Your task to perform on an android device: Open my contact list Image 0: 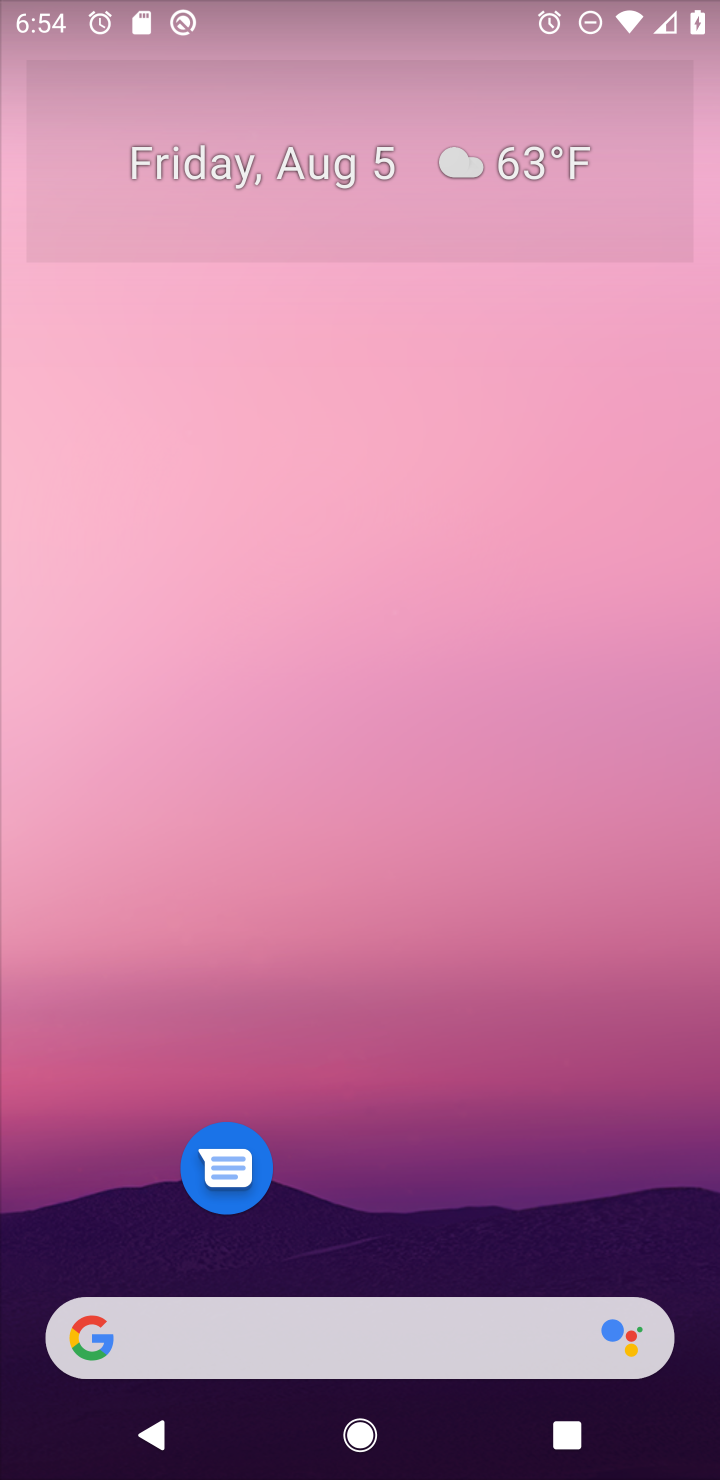
Step 0: press home button
Your task to perform on an android device: Open my contact list Image 1: 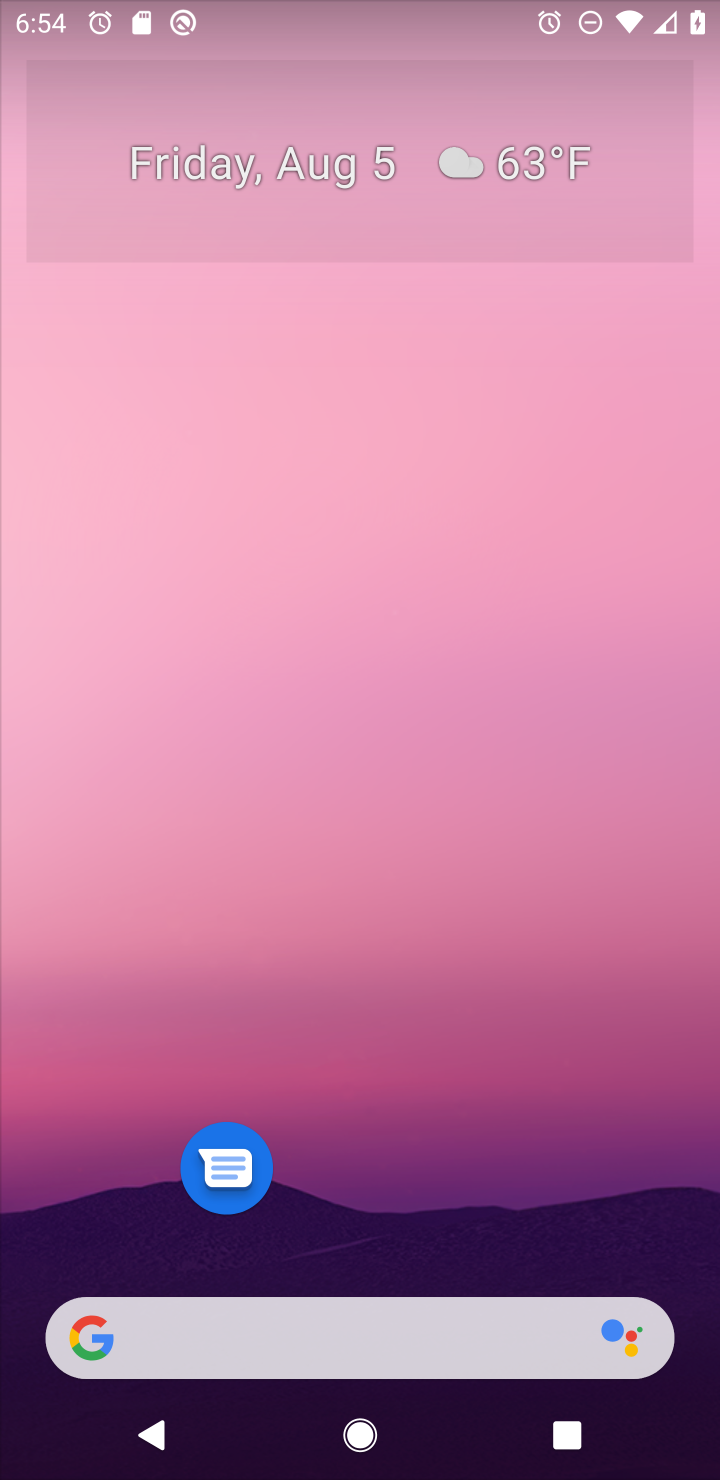
Step 1: drag from (470, 1135) to (560, 208)
Your task to perform on an android device: Open my contact list Image 2: 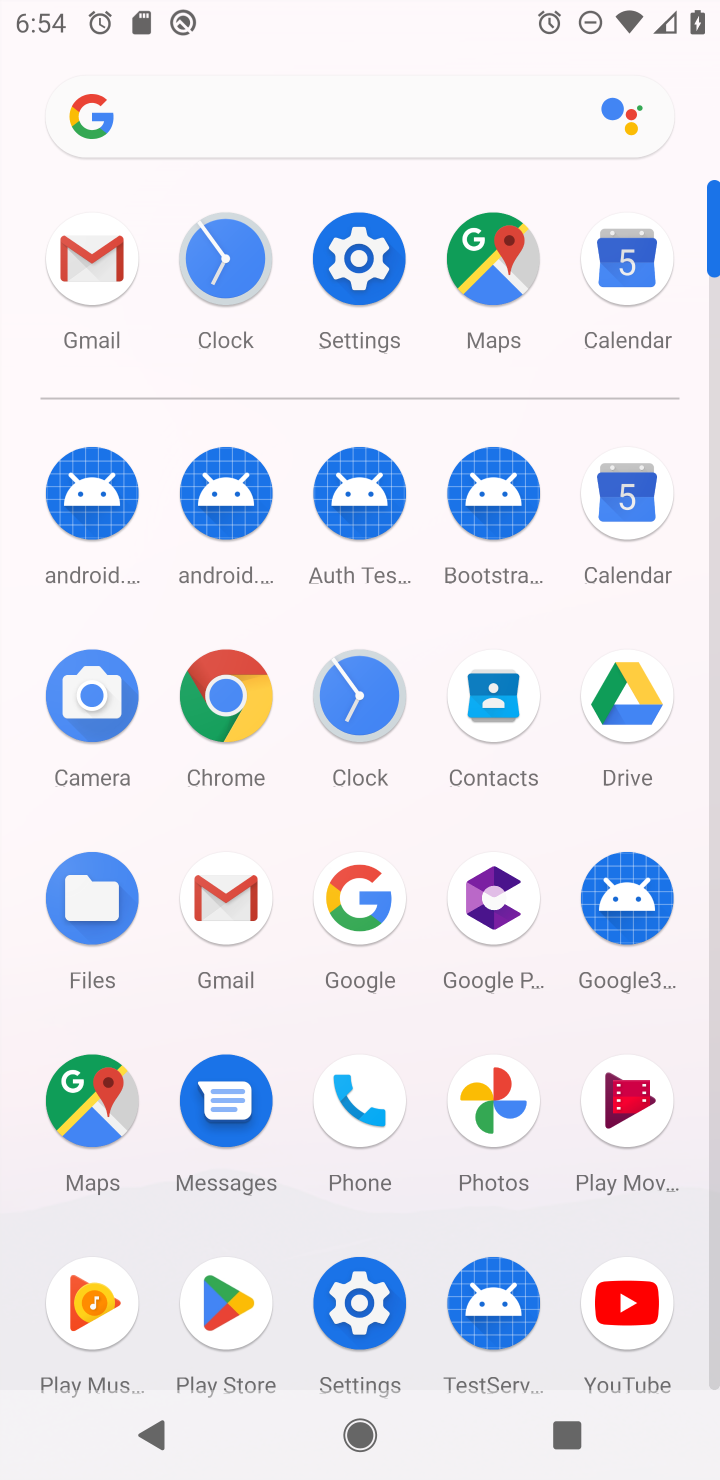
Step 2: click (504, 695)
Your task to perform on an android device: Open my contact list Image 3: 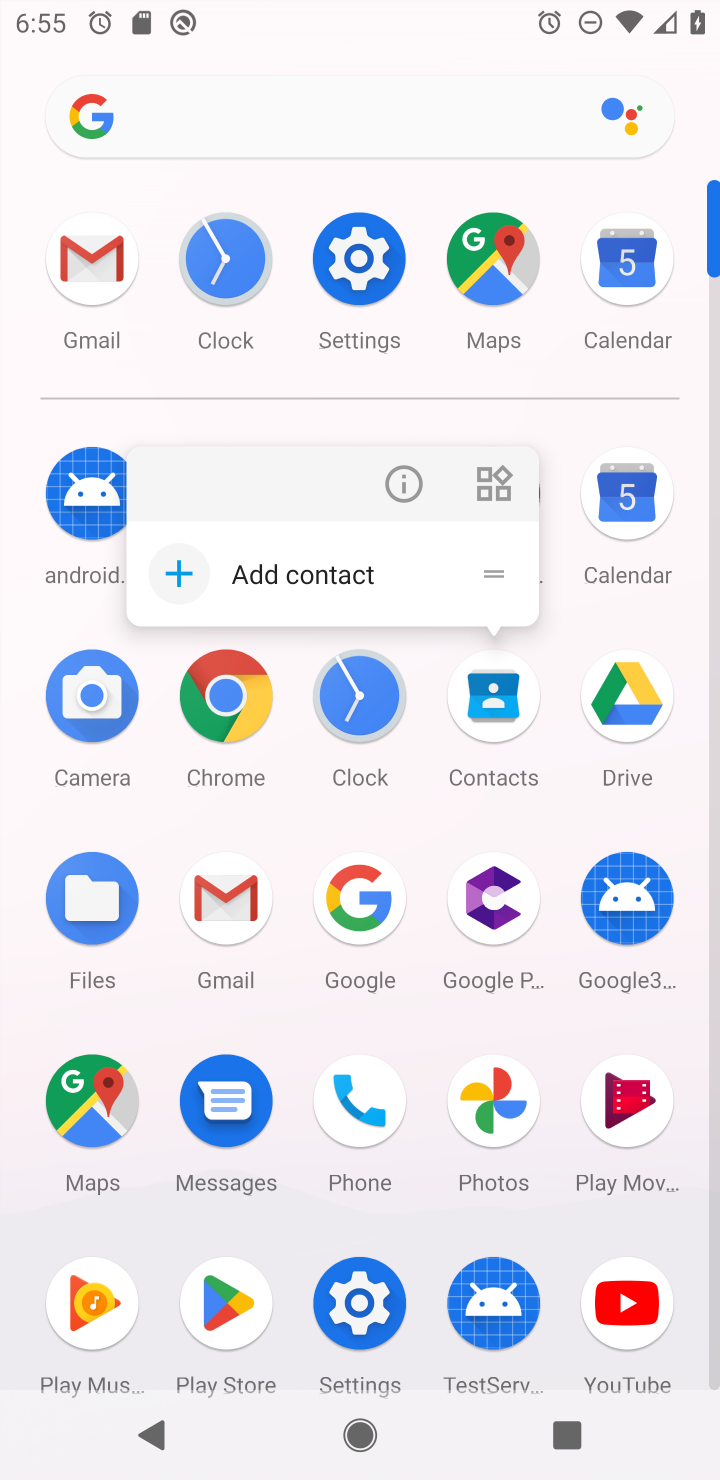
Step 3: click (498, 721)
Your task to perform on an android device: Open my contact list Image 4: 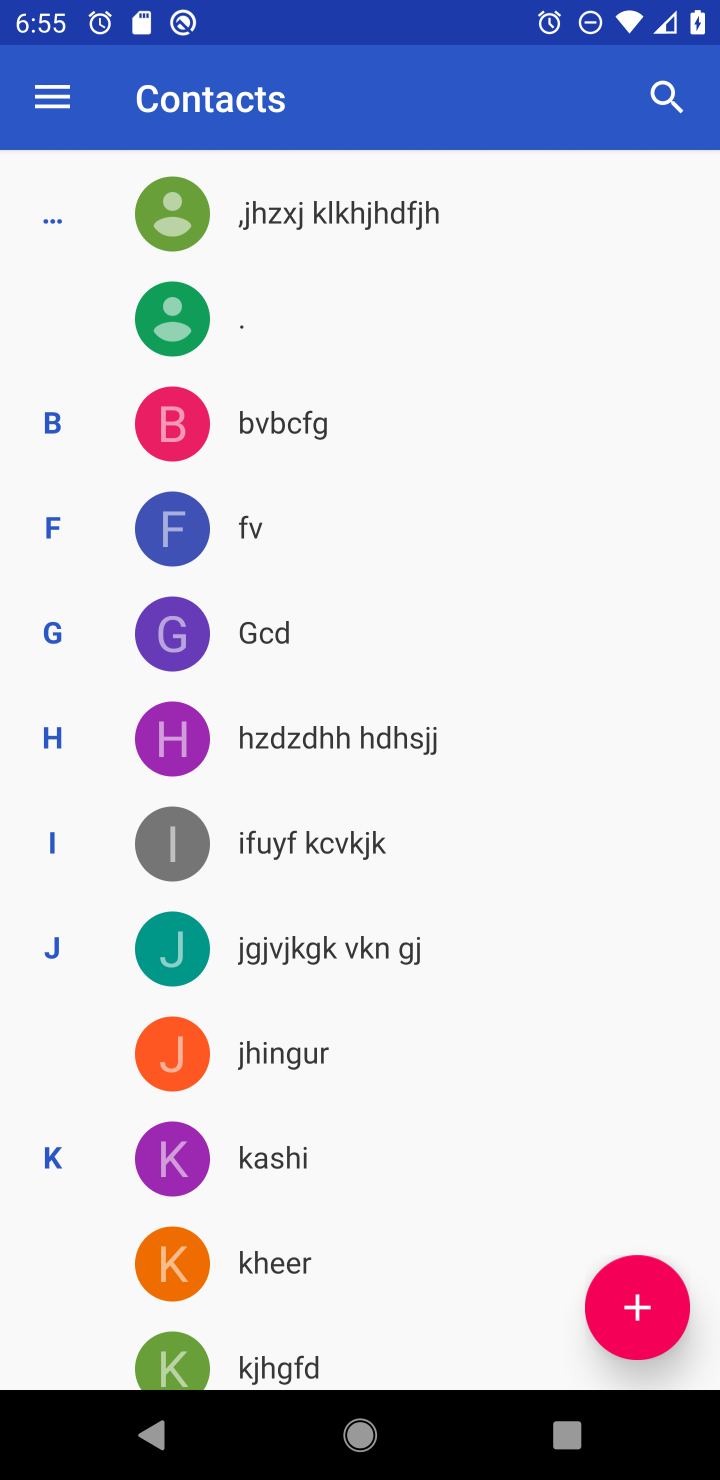
Step 4: task complete